Your task to perform on an android device: find snoozed emails in the gmail app Image 0: 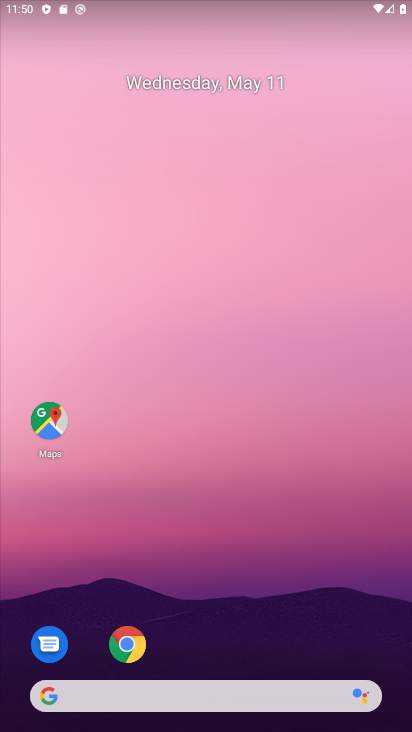
Step 0: drag from (245, 592) to (189, 66)
Your task to perform on an android device: find snoozed emails in the gmail app Image 1: 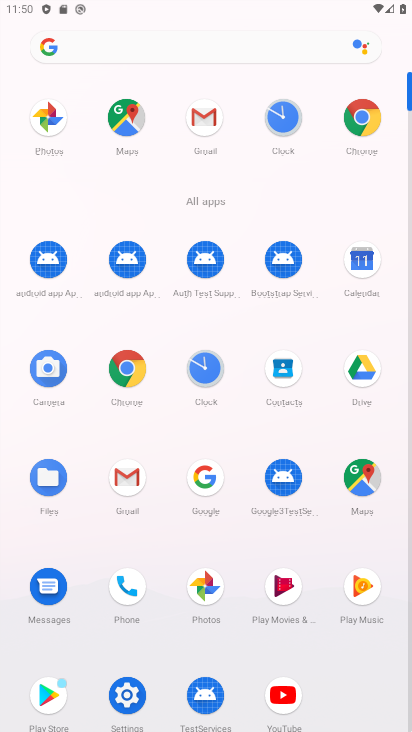
Step 1: click (202, 121)
Your task to perform on an android device: find snoozed emails in the gmail app Image 2: 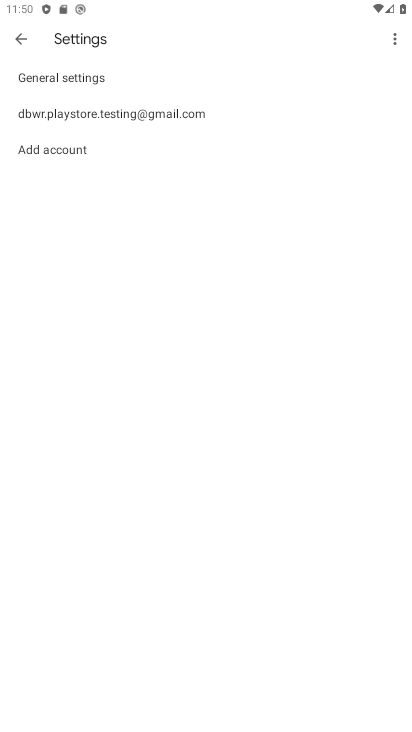
Step 2: click (16, 41)
Your task to perform on an android device: find snoozed emails in the gmail app Image 3: 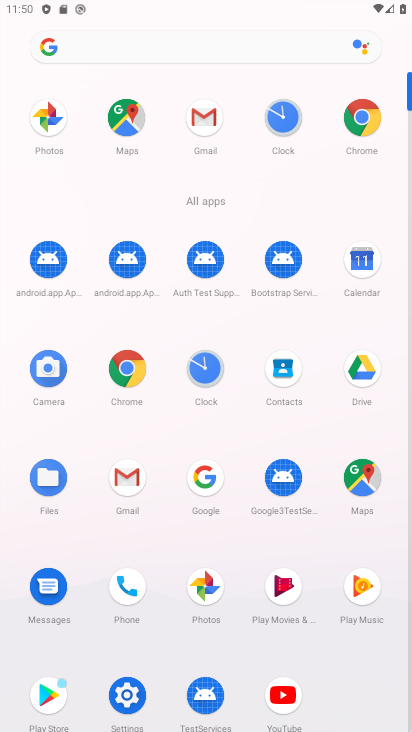
Step 3: click (196, 107)
Your task to perform on an android device: find snoozed emails in the gmail app Image 4: 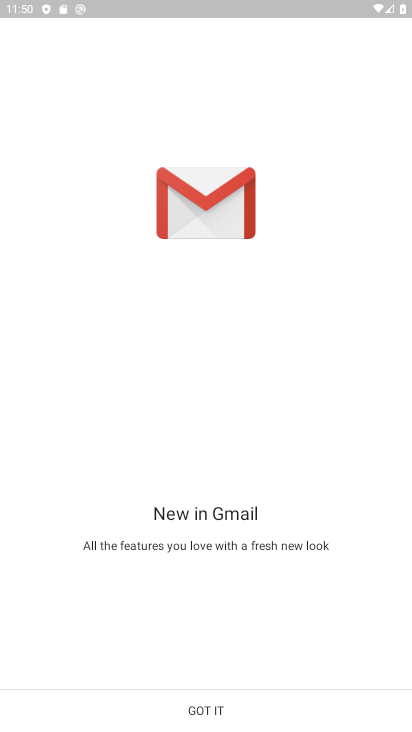
Step 4: click (223, 702)
Your task to perform on an android device: find snoozed emails in the gmail app Image 5: 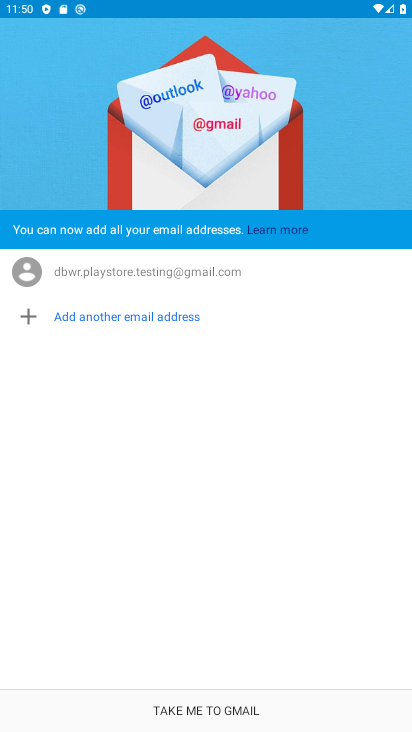
Step 5: click (225, 705)
Your task to perform on an android device: find snoozed emails in the gmail app Image 6: 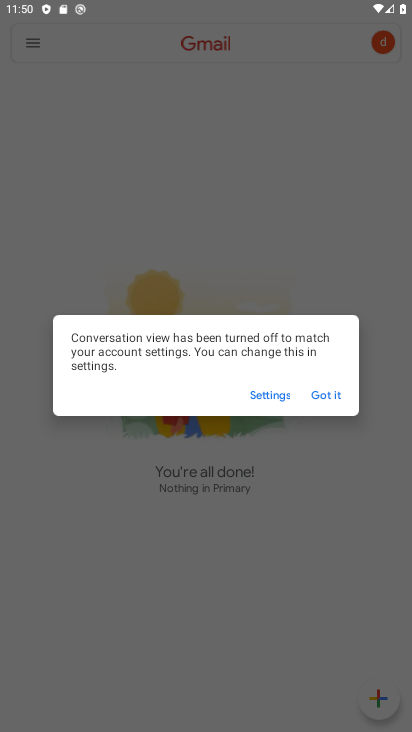
Step 6: click (325, 392)
Your task to perform on an android device: find snoozed emails in the gmail app Image 7: 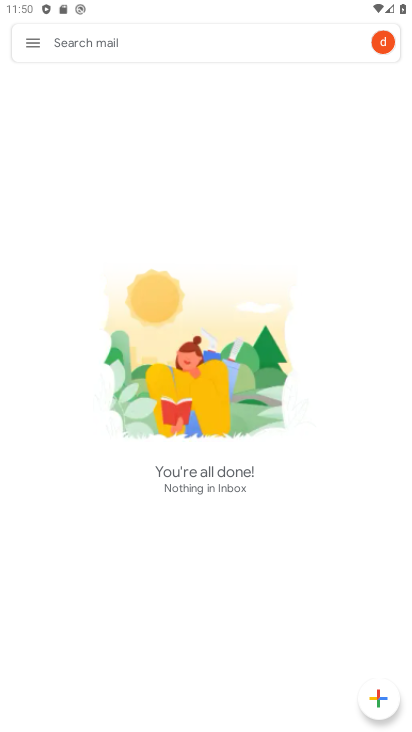
Step 7: click (28, 42)
Your task to perform on an android device: find snoozed emails in the gmail app Image 8: 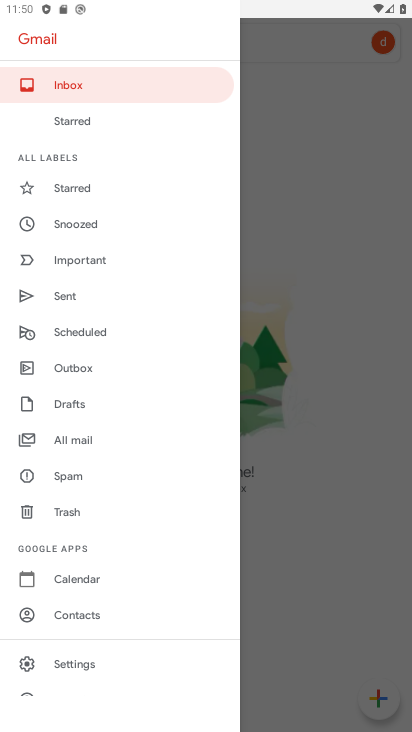
Step 8: click (102, 217)
Your task to perform on an android device: find snoozed emails in the gmail app Image 9: 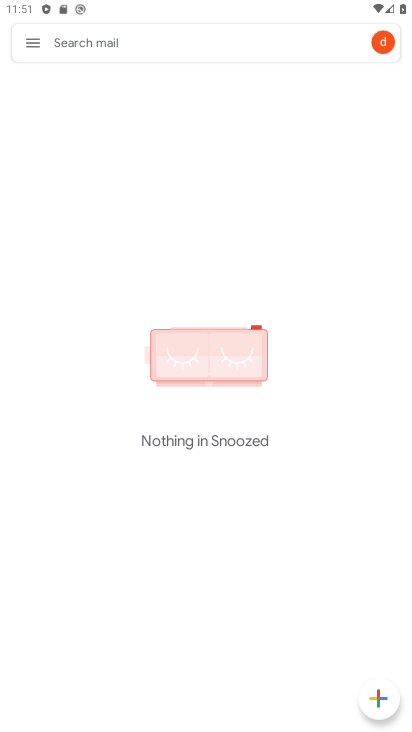
Step 9: task complete